Your task to perform on an android device: What is the recent news? Image 0: 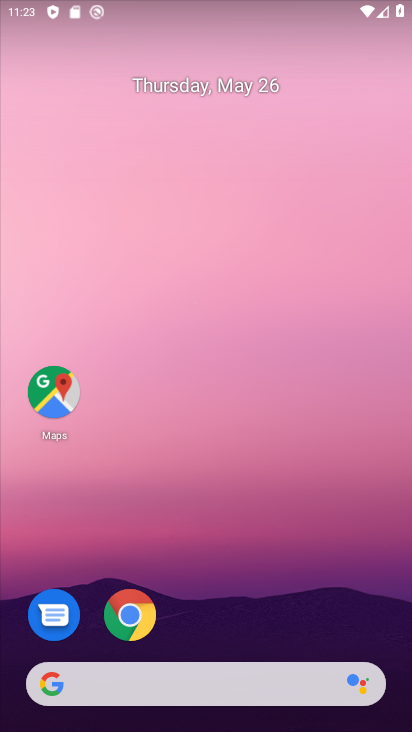
Step 0: click (242, 679)
Your task to perform on an android device: What is the recent news? Image 1: 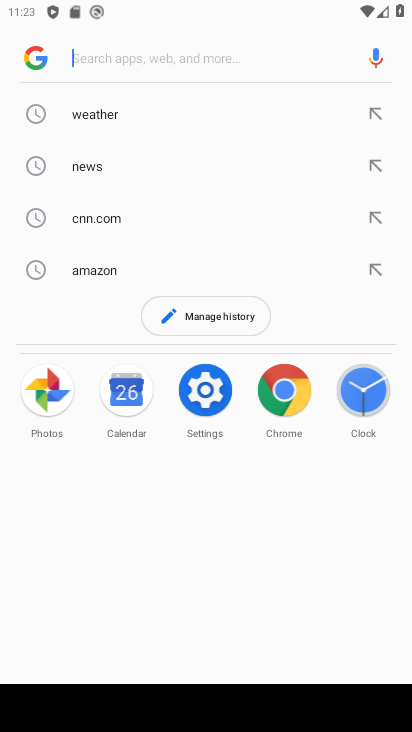
Step 1: click (150, 70)
Your task to perform on an android device: What is the recent news? Image 2: 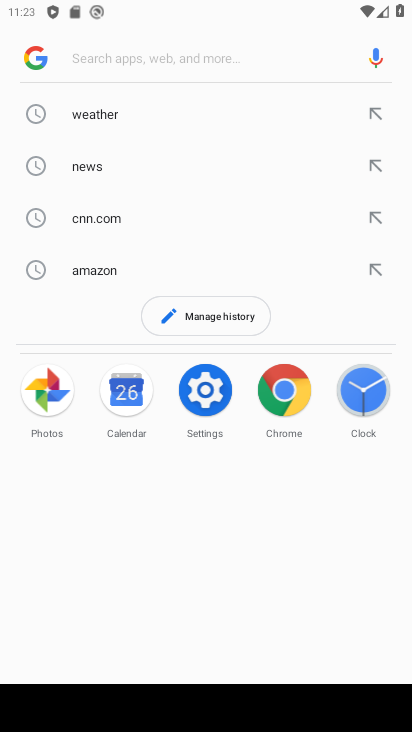
Step 2: type "recent news"
Your task to perform on an android device: What is the recent news? Image 3: 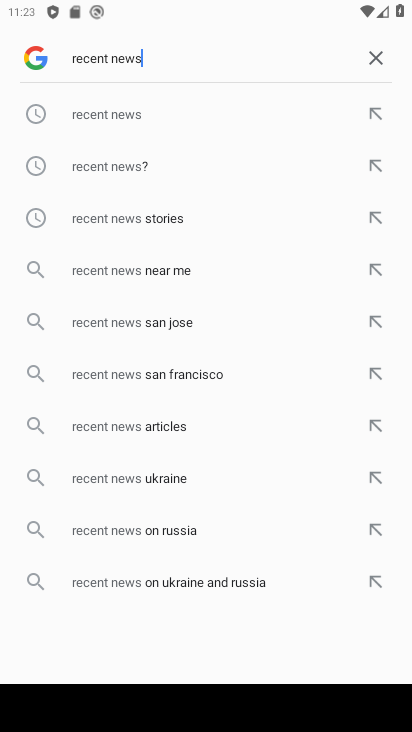
Step 3: click (128, 120)
Your task to perform on an android device: What is the recent news? Image 4: 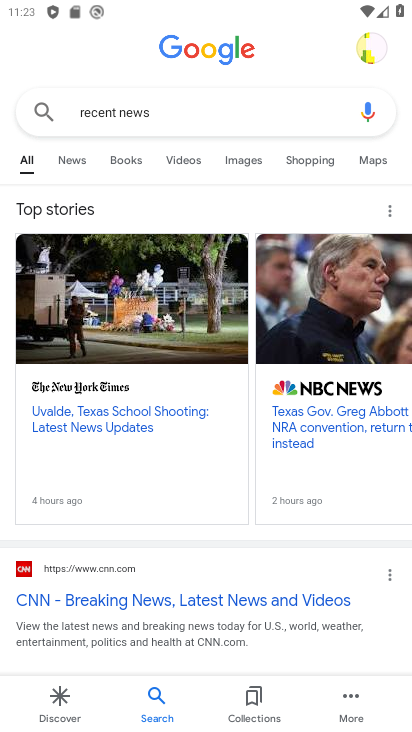
Step 4: task complete